Your task to perform on an android device: turn smart compose on in the gmail app Image 0: 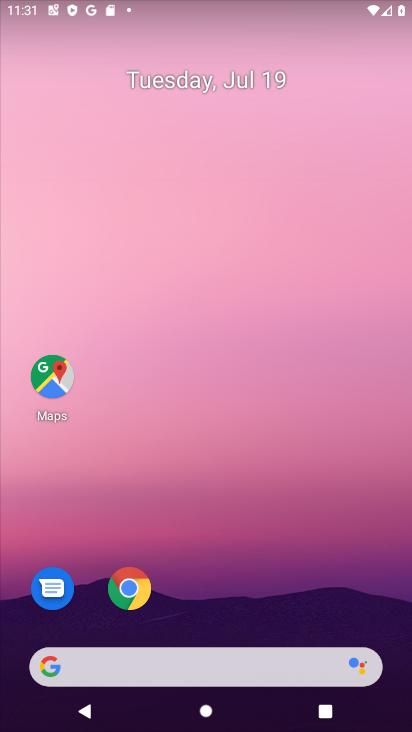
Step 0: drag from (239, 687) to (218, 168)
Your task to perform on an android device: turn smart compose on in the gmail app Image 1: 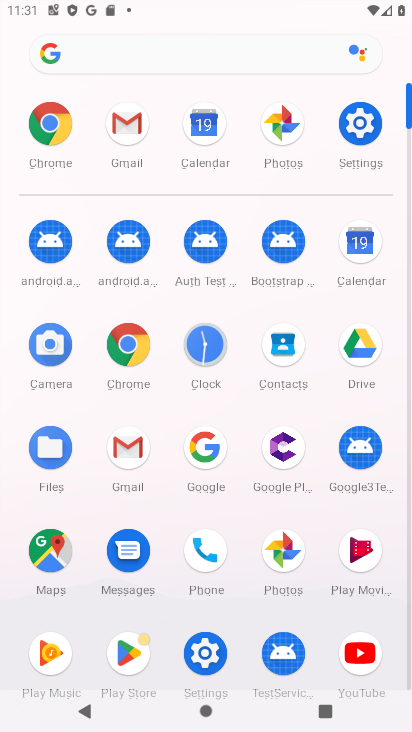
Step 1: click (127, 448)
Your task to perform on an android device: turn smart compose on in the gmail app Image 2: 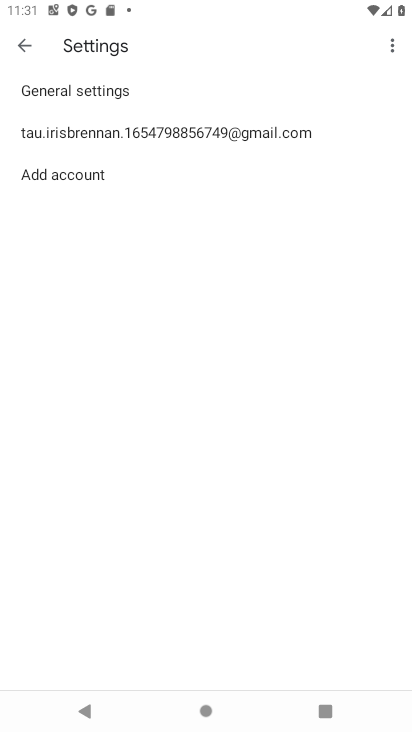
Step 2: click (71, 129)
Your task to perform on an android device: turn smart compose on in the gmail app Image 3: 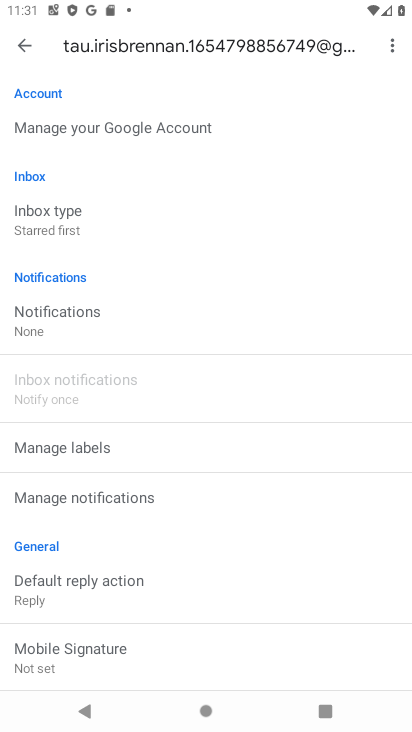
Step 3: task complete